Your task to perform on an android device: check out phone information Image 0: 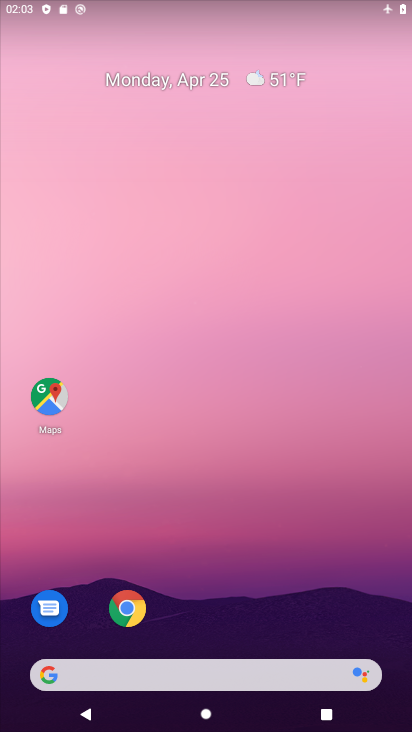
Step 0: drag from (202, 623) to (251, 4)
Your task to perform on an android device: check out phone information Image 1: 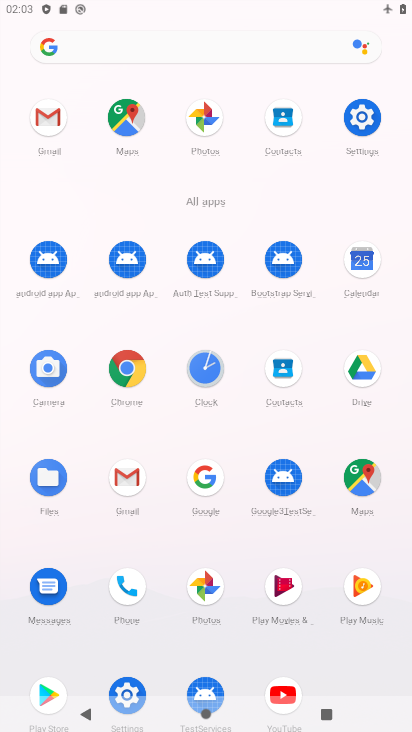
Step 1: click (366, 145)
Your task to perform on an android device: check out phone information Image 2: 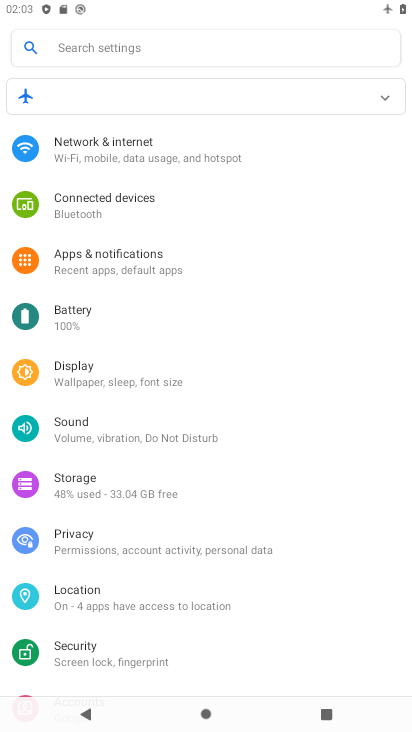
Step 2: drag from (210, 652) to (212, 183)
Your task to perform on an android device: check out phone information Image 3: 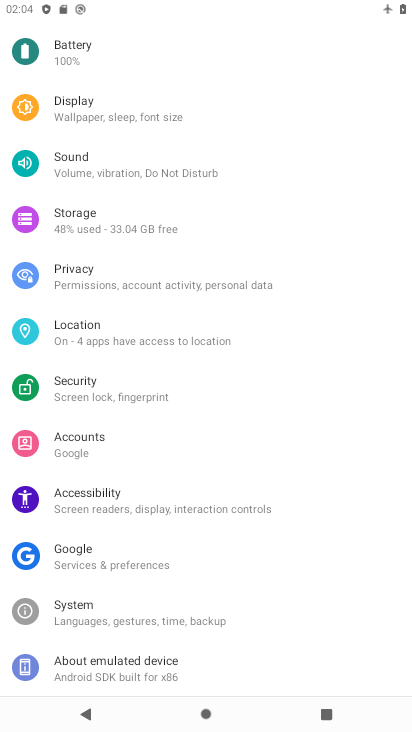
Step 3: click (168, 664)
Your task to perform on an android device: check out phone information Image 4: 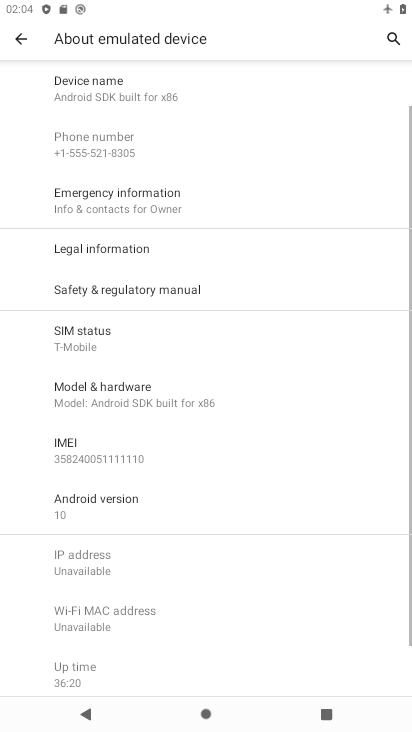
Step 4: task complete